Your task to perform on an android device: Check the weather Image 0: 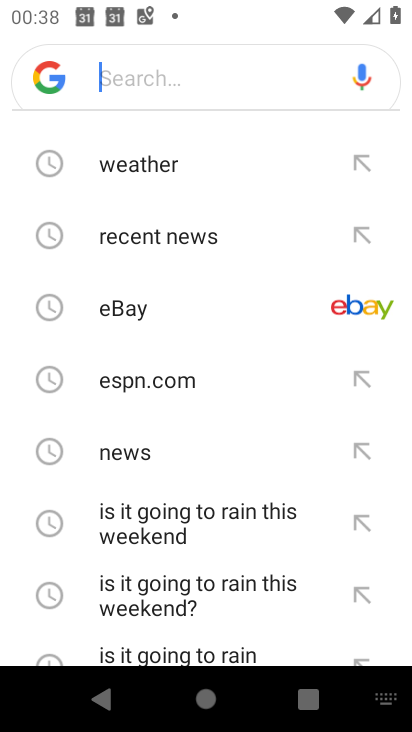
Step 0: press home button
Your task to perform on an android device: Check the weather Image 1: 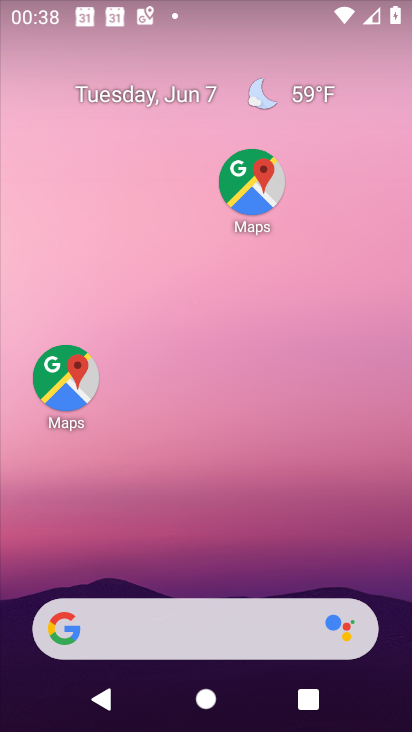
Step 1: drag from (222, 570) to (228, 100)
Your task to perform on an android device: Check the weather Image 2: 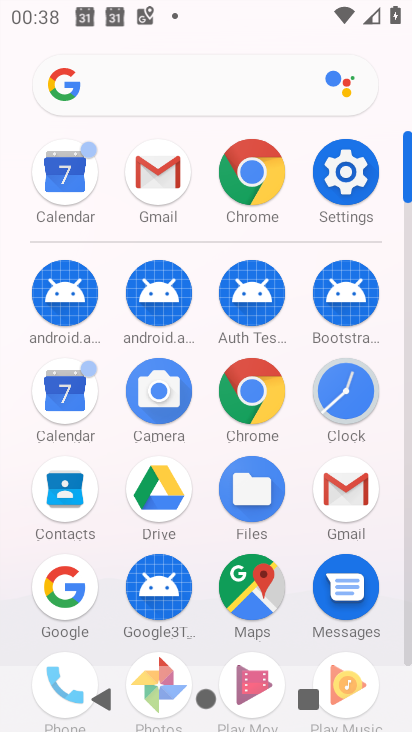
Step 2: click (65, 591)
Your task to perform on an android device: Check the weather Image 3: 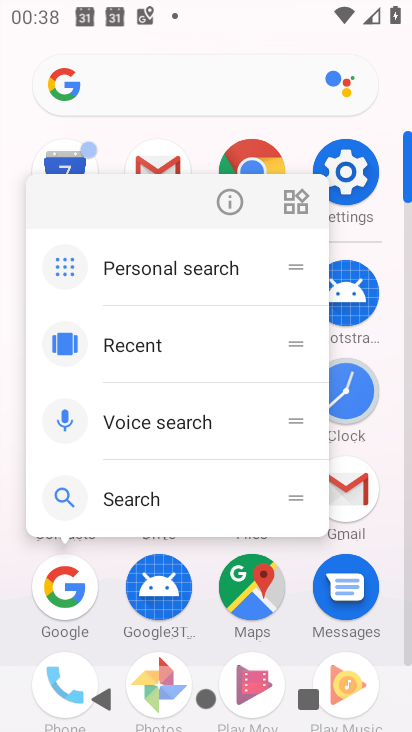
Step 3: click (71, 587)
Your task to perform on an android device: Check the weather Image 4: 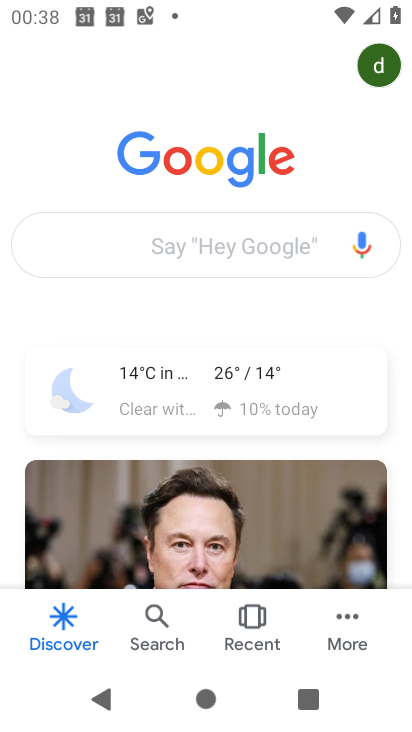
Step 4: click (178, 256)
Your task to perform on an android device: Check the weather Image 5: 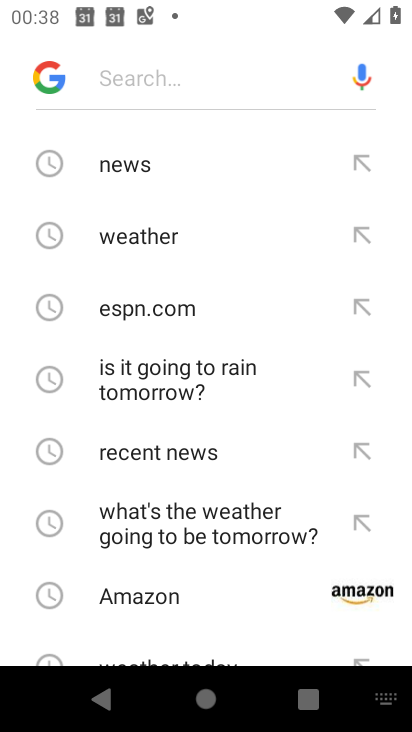
Step 5: click (168, 233)
Your task to perform on an android device: Check the weather Image 6: 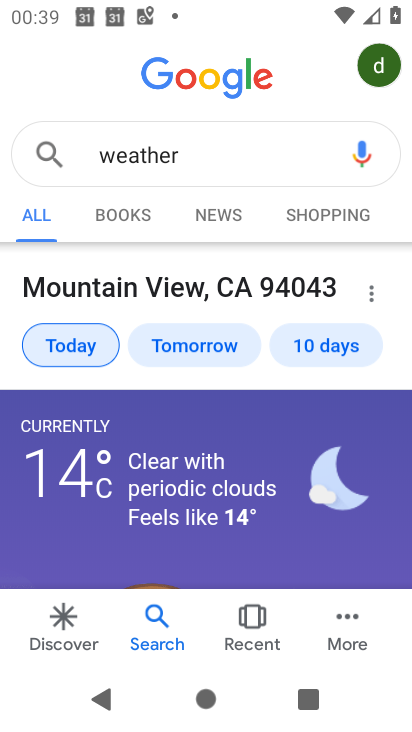
Step 6: task complete